Your task to perform on an android device: change notifications settings Image 0: 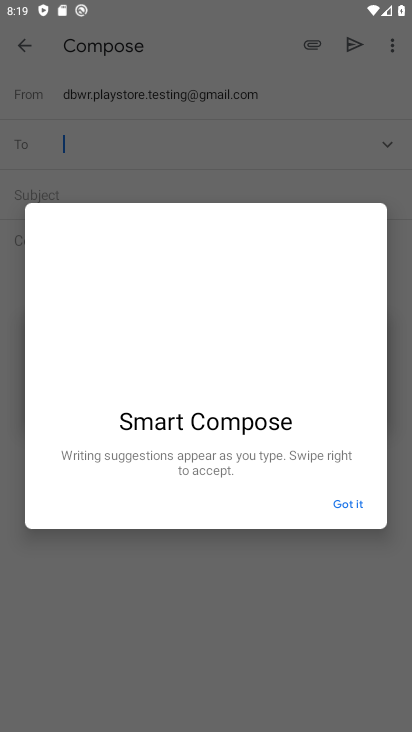
Step 0: press home button
Your task to perform on an android device: change notifications settings Image 1: 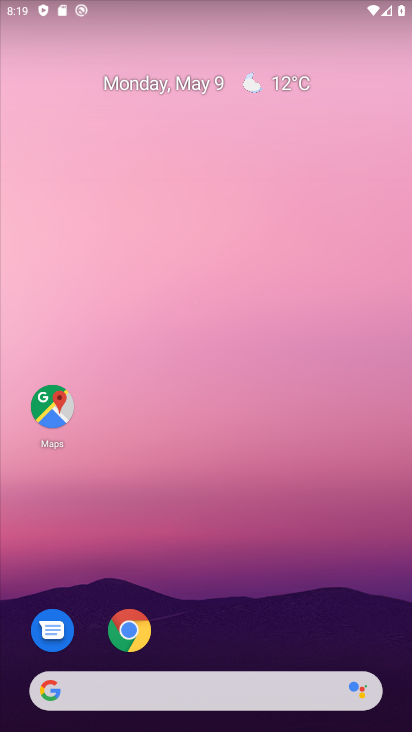
Step 1: drag from (253, 642) to (280, 49)
Your task to perform on an android device: change notifications settings Image 2: 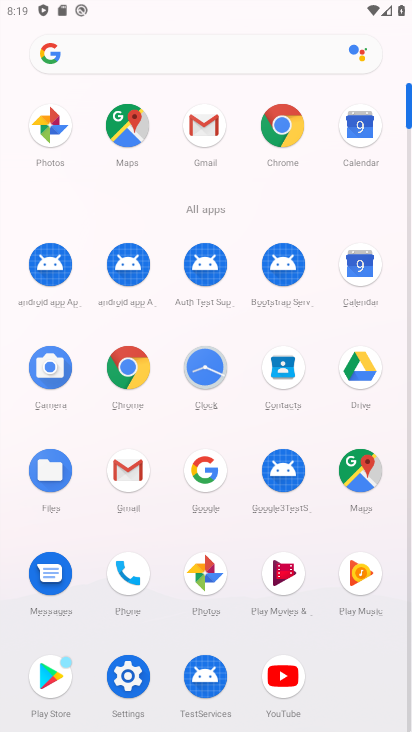
Step 2: click (144, 674)
Your task to perform on an android device: change notifications settings Image 3: 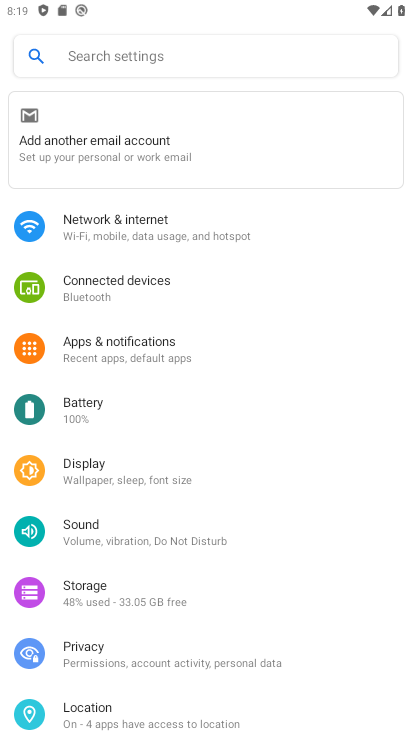
Step 3: click (168, 351)
Your task to perform on an android device: change notifications settings Image 4: 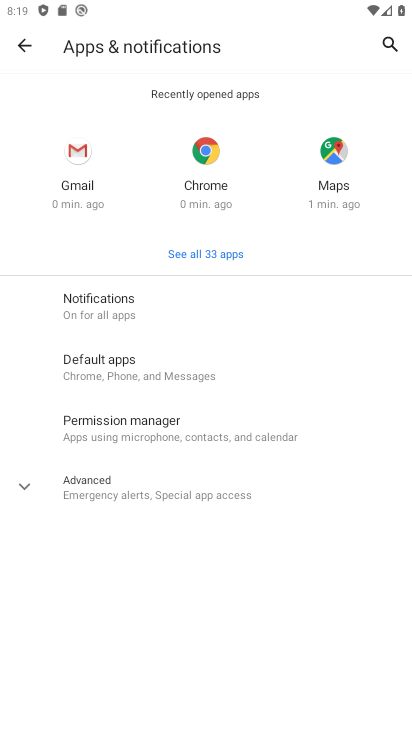
Step 4: click (126, 313)
Your task to perform on an android device: change notifications settings Image 5: 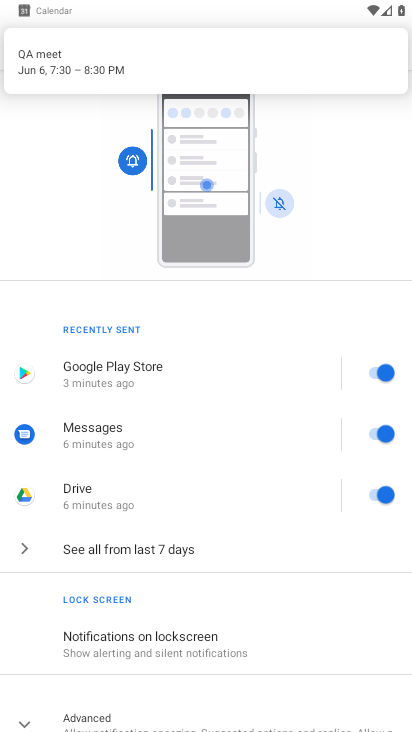
Step 5: drag from (144, 641) to (160, 410)
Your task to perform on an android device: change notifications settings Image 6: 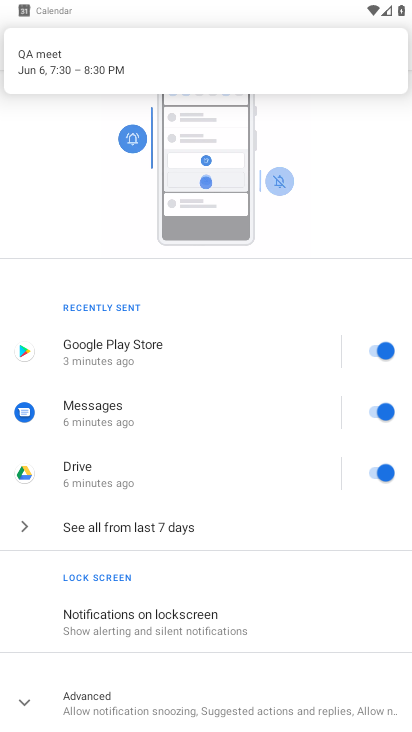
Step 6: click (365, 346)
Your task to perform on an android device: change notifications settings Image 7: 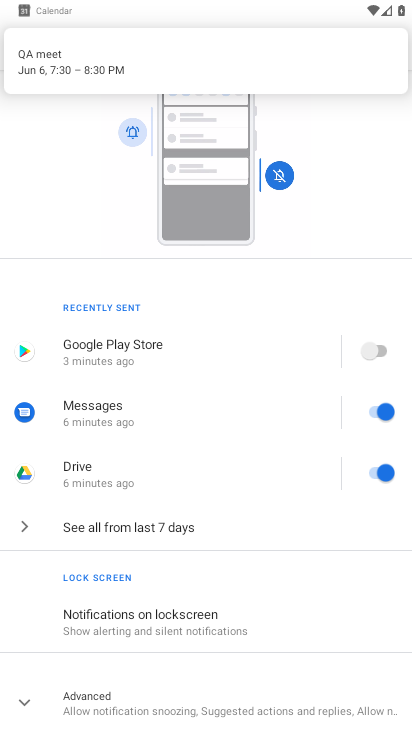
Step 7: click (368, 411)
Your task to perform on an android device: change notifications settings Image 8: 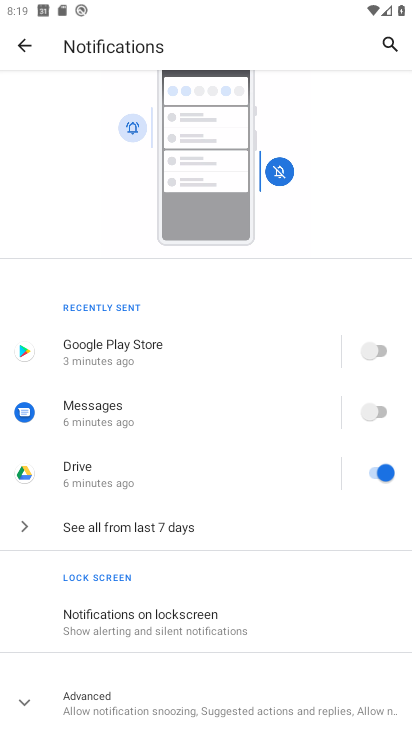
Step 8: click (361, 467)
Your task to perform on an android device: change notifications settings Image 9: 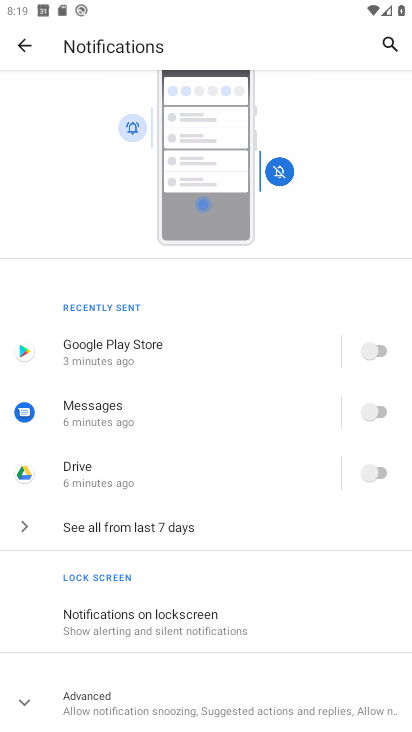
Step 9: click (164, 610)
Your task to perform on an android device: change notifications settings Image 10: 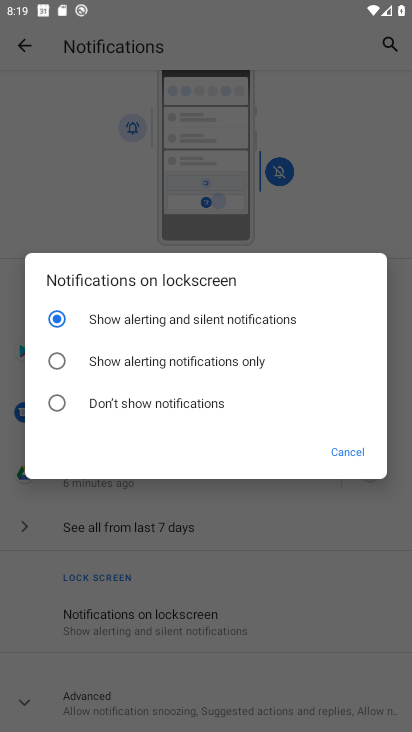
Step 10: click (85, 410)
Your task to perform on an android device: change notifications settings Image 11: 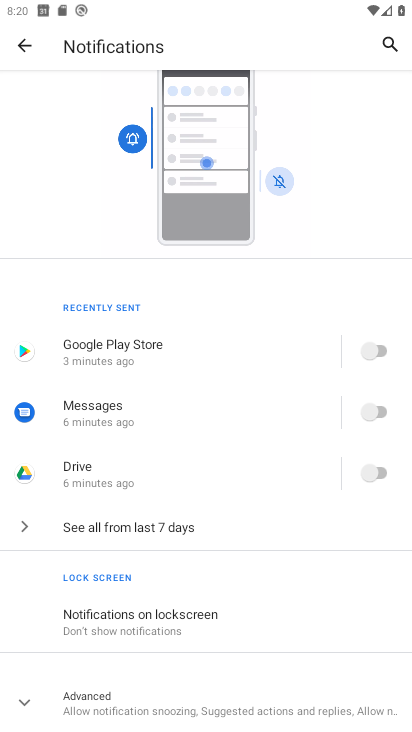
Step 11: task complete